Your task to perform on an android device: open chrome privacy settings Image 0: 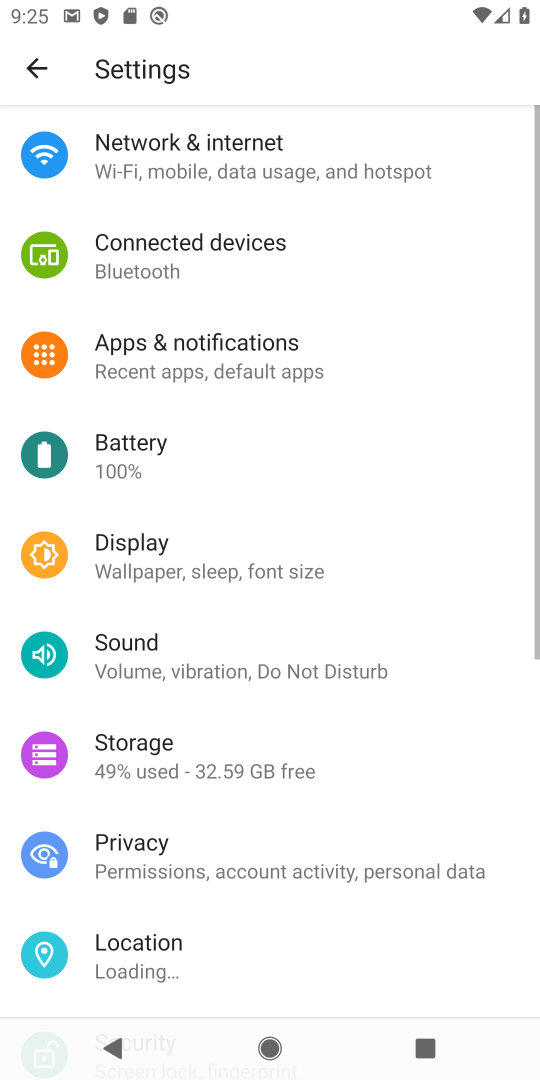
Step 0: press home button
Your task to perform on an android device: open chrome privacy settings Image 1: 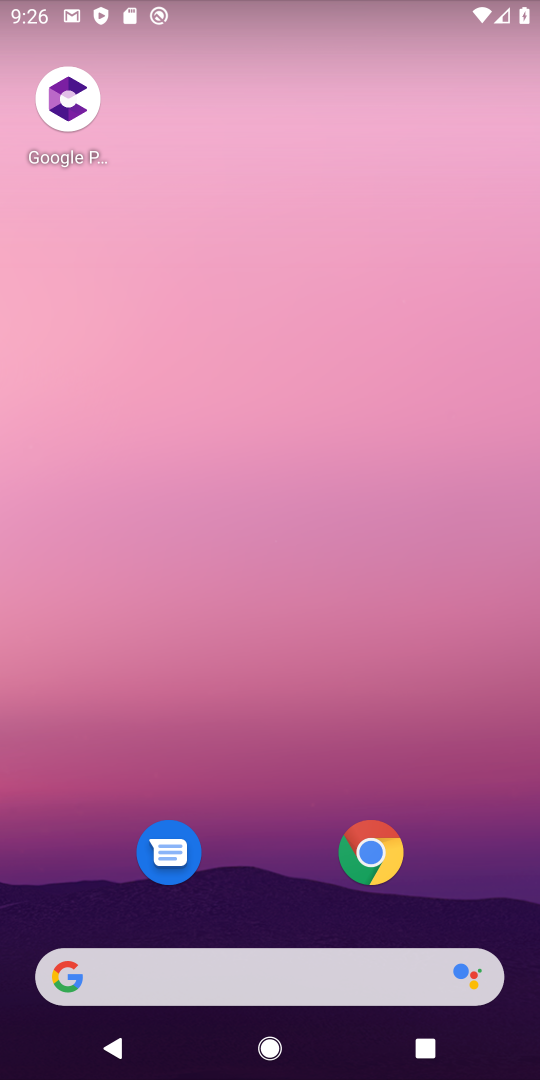
Step 1: drag from (287, 836) to (387, 0)
Your task to perform on an android device: open chrome privacy settings Image 2: 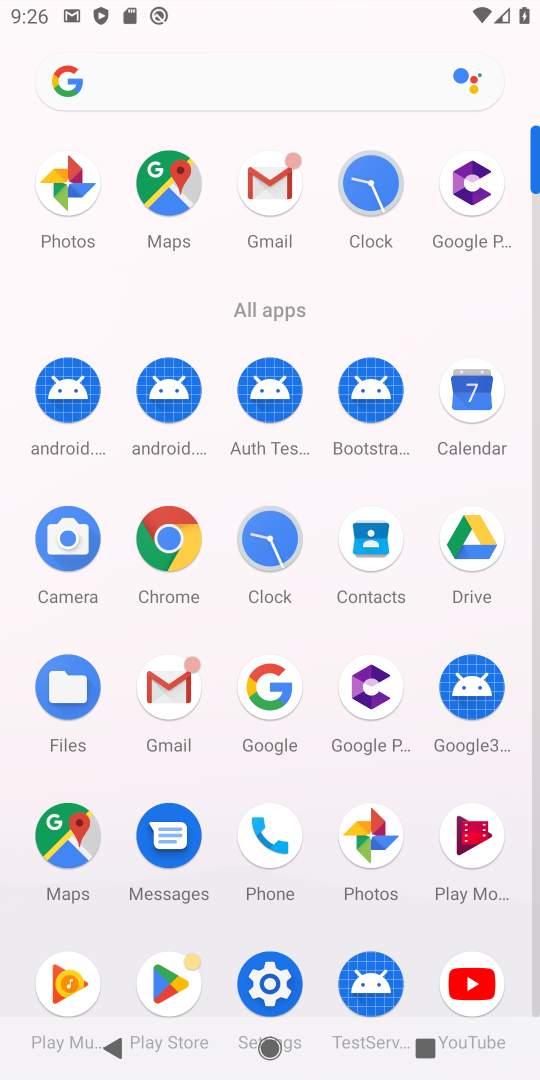
Step 2: click (161, 578)
Your task to perform on an android device: open chrome privacy settings Image 3: 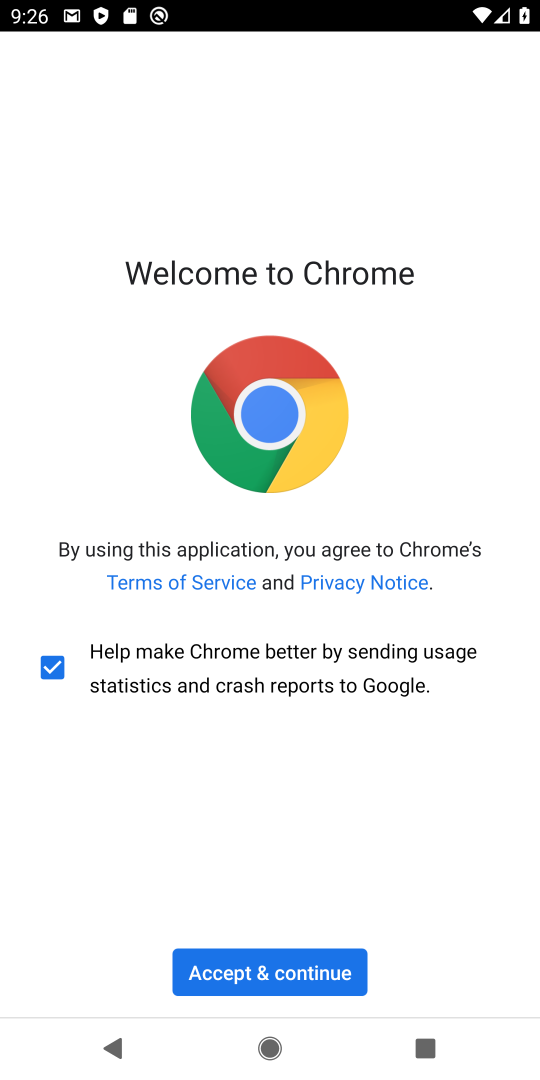
Step 3: click (299, 969)
Your task to perform on an android device: open chrome privacy settings Image 4: 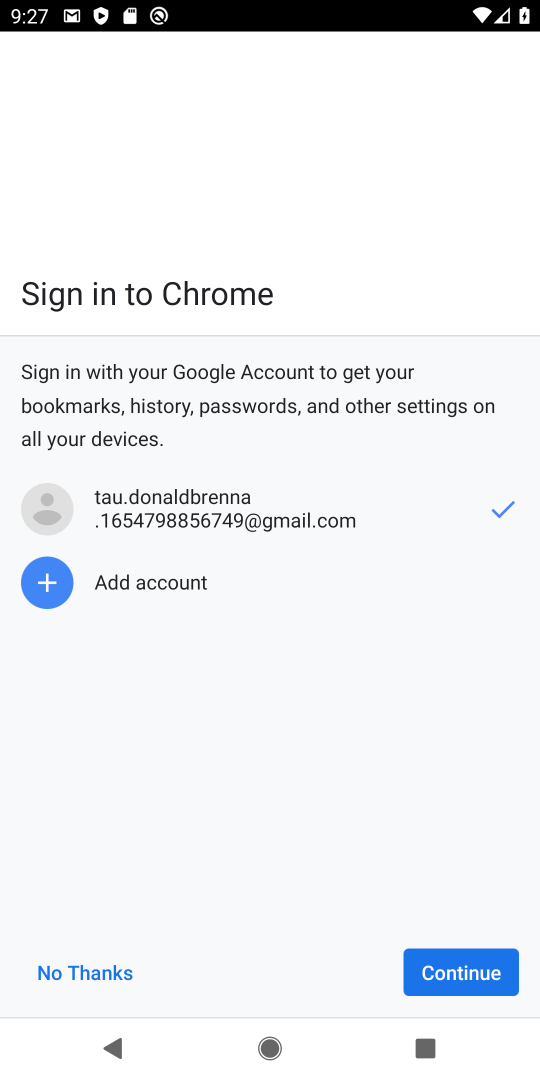
Step 4: click (444, 992)
Your task to perform on an android device: open chrome privacy settings Image 5: 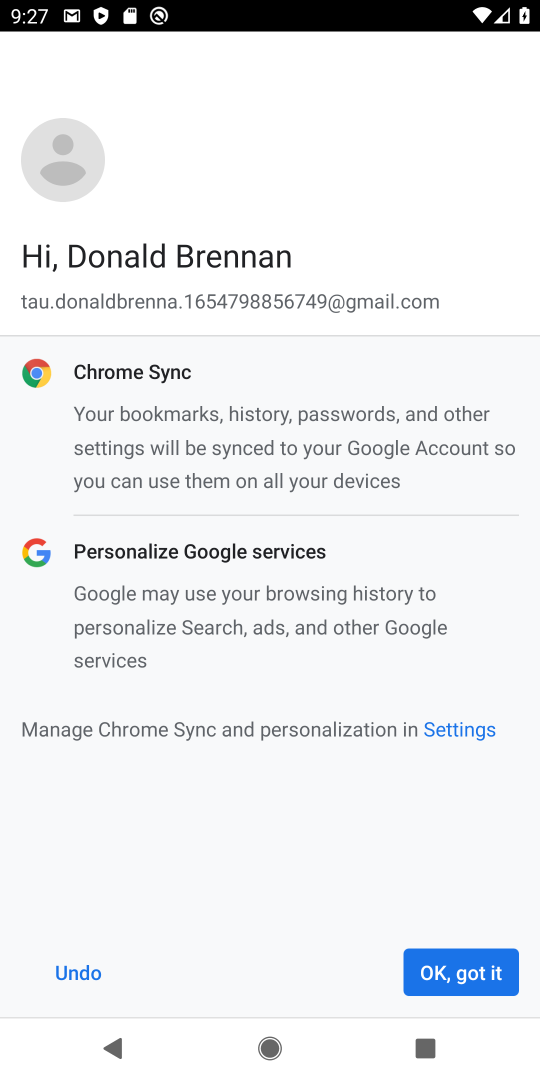
Step 5: click (444, 992)
Your task to perform on an android device: open chrome privacy settings Image 6: 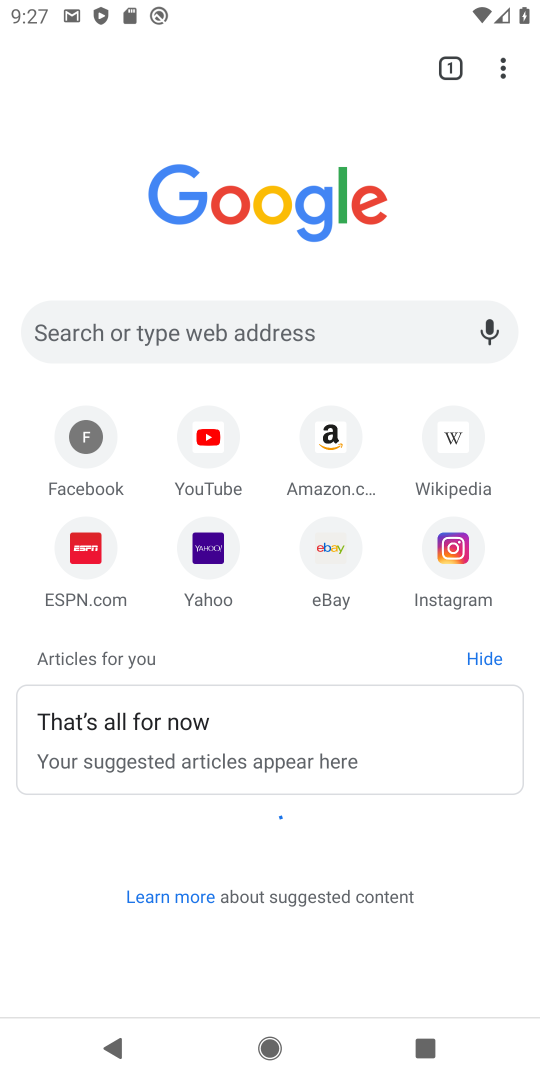
Step 6: click (507, 83)
Your task to perform on an android device: open chrome privacy settings Image 7: 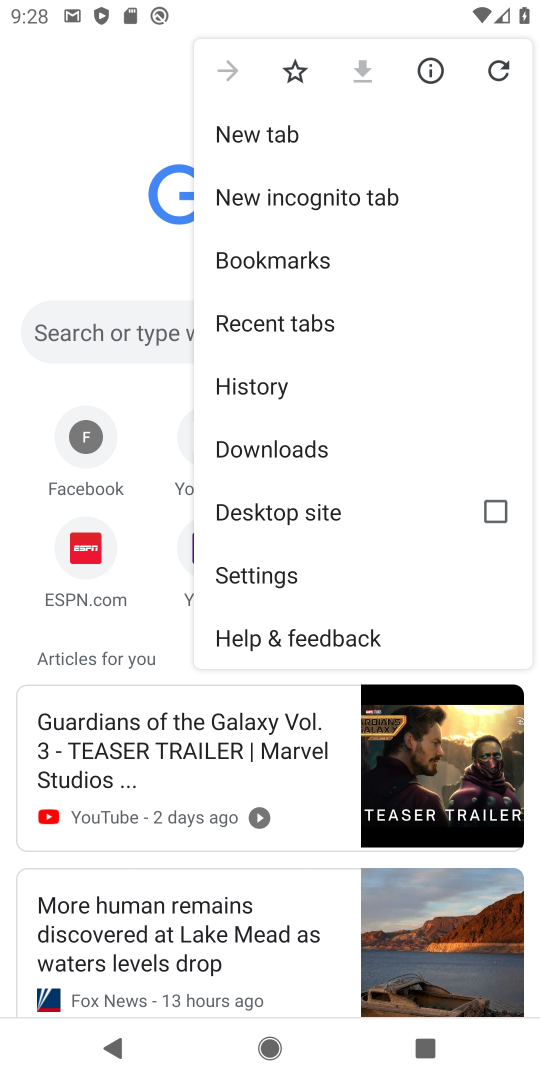
Step 7: click (248, 569)
Your task to perform on an android device: open chrome privacy settings Image 8: 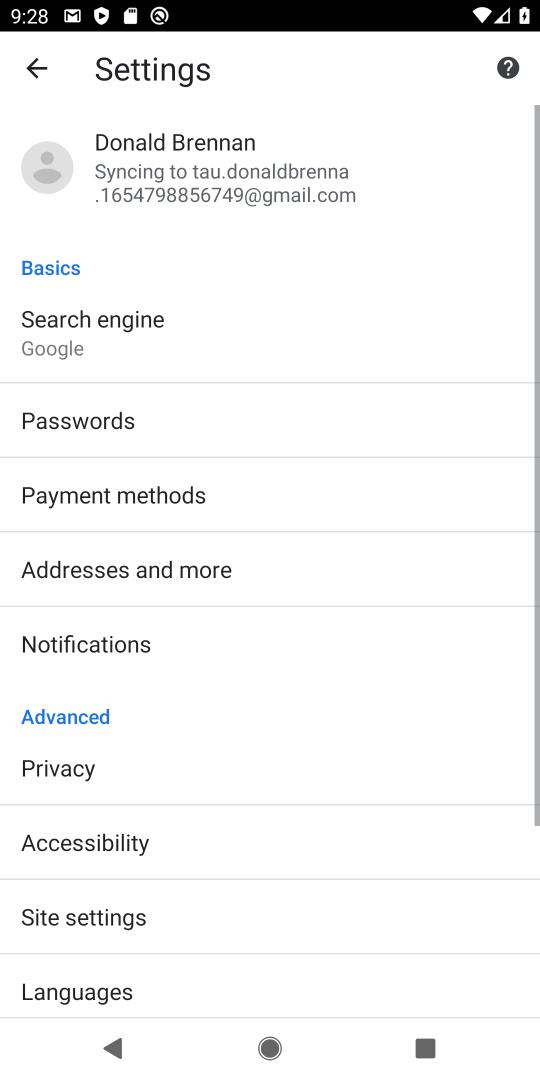
Step 8: click (106, 774)
Your task to perform on an android device: open chrome privacy settings Image 9: 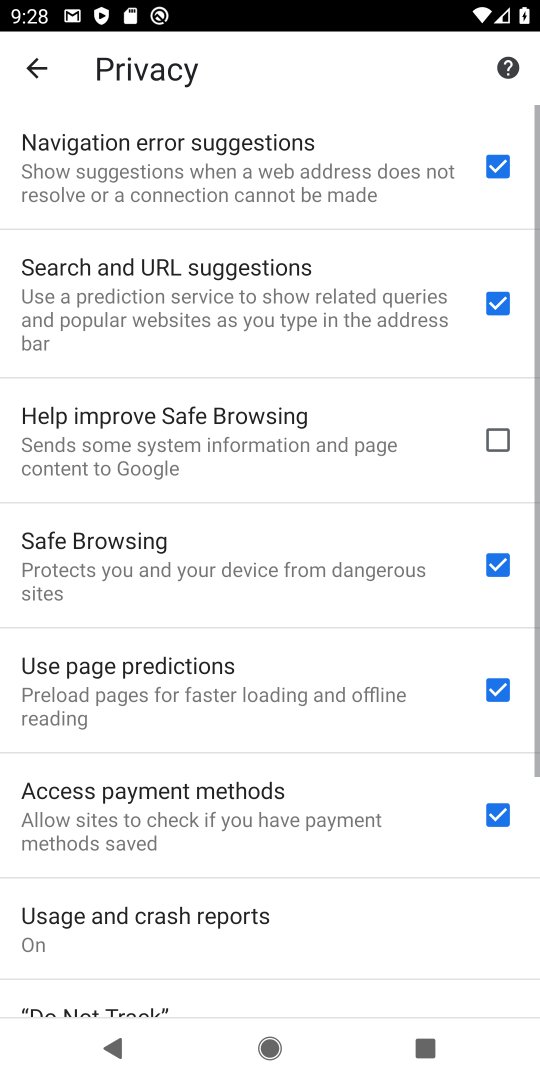
Step 9: task complete